Your task to perform on an android device: turn vacation reply on in the gmail app Image 0: 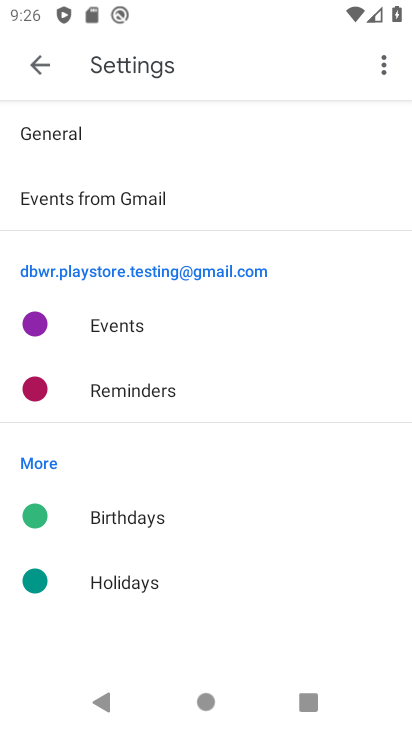
Step 0: drag from (279, 608) to (318, 468)
Your task to perform on an android device: turn vacation reply on in the gmail app Image 1: 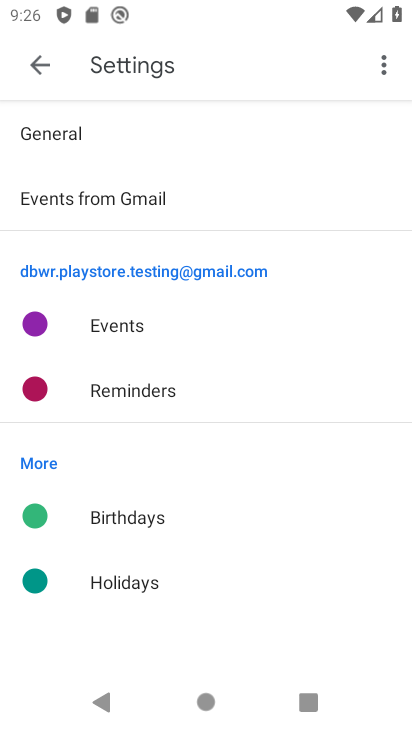
Step 1: press home button
Your task to perform on an android device: turn vacation reply on in the gmail app Image 2: 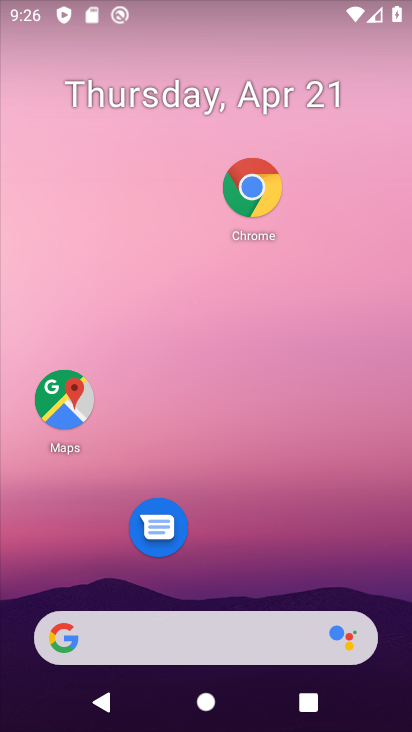
Step 2: drag from (312, 337) to (320, 132)
Your task to perform on an android device: turn vacation reply on in the gmail app Image 3: 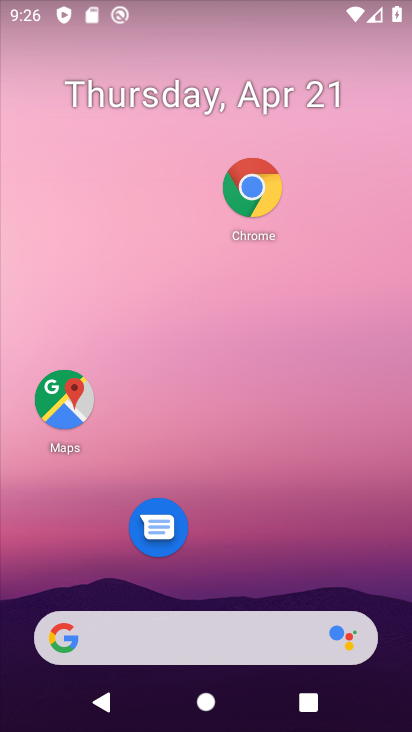
Step 3: drag from (206, 427) to (243, 168)
Your task to perform on an android device: turn vacation reply on in the gmail app Image 4: 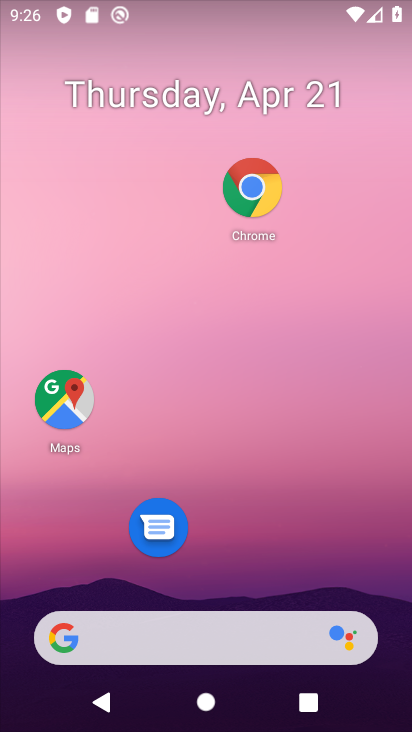
Step 4: drag from (289, 430) to (337, 79)
Your task to perform on an android device: turn vacation reply on in the gmail app Image 5: 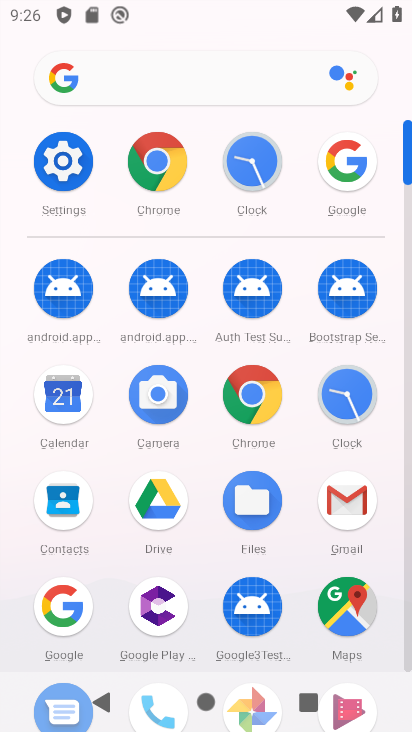
Step 5: click (346, 501)
Your task to perform on an android device: turn vacation reply on in the gmail app Image 6: 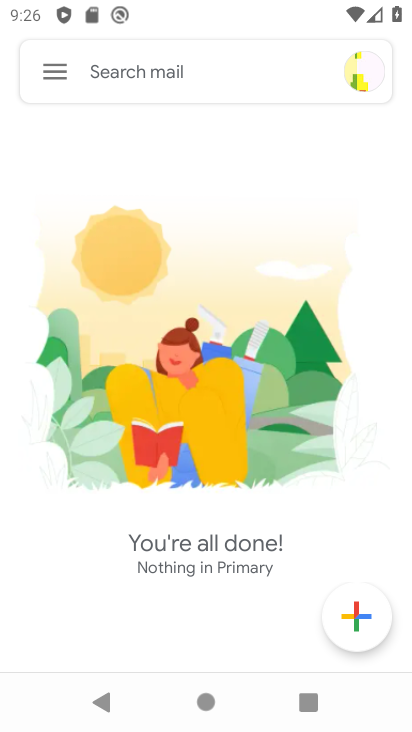
Step 6: click (57, 80)
Your task to perform on an android device: turn vacation reply on in the gmail app Image 7: 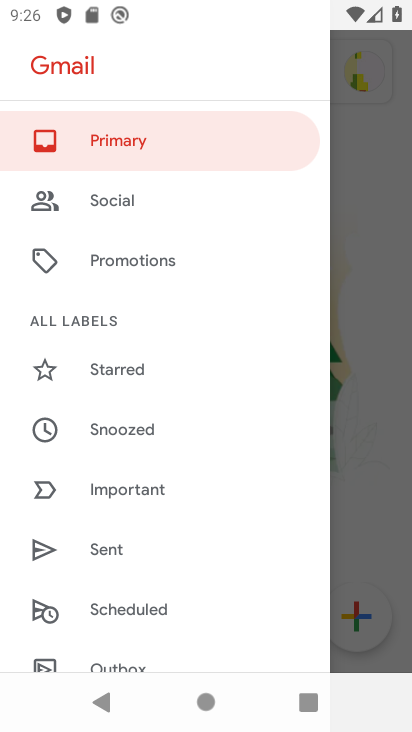
Step 7: drag from (143, 544) to (232, 169)
Your task to perform on an android device: turn vacation reply on in the gmail app Image 8: 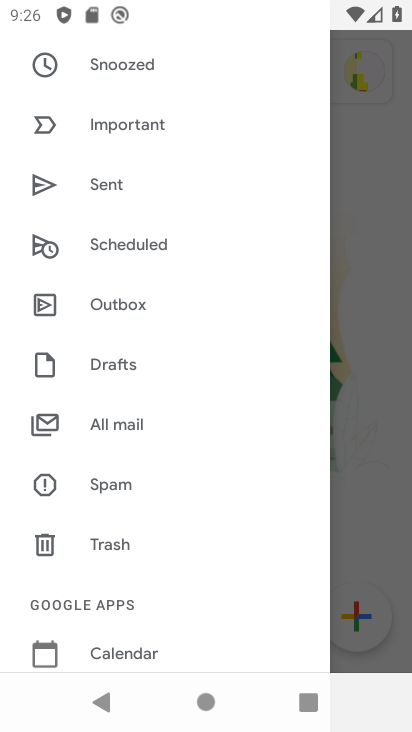
Step 8: drag from (191, 369) to (219, 213)
Your task to perform on an android device: turn vacation reply on in the gmail app Image 9: 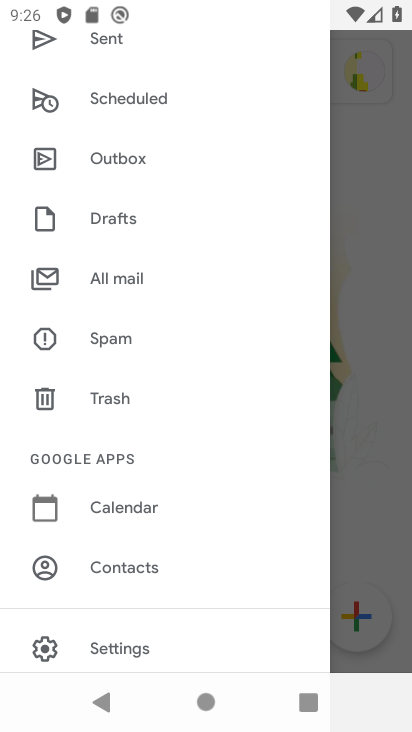
Step 9: drag from (172, 586) to (223, 257)
Your task to perform on an android device: turn vacation reply on in the gmail app Image 10: 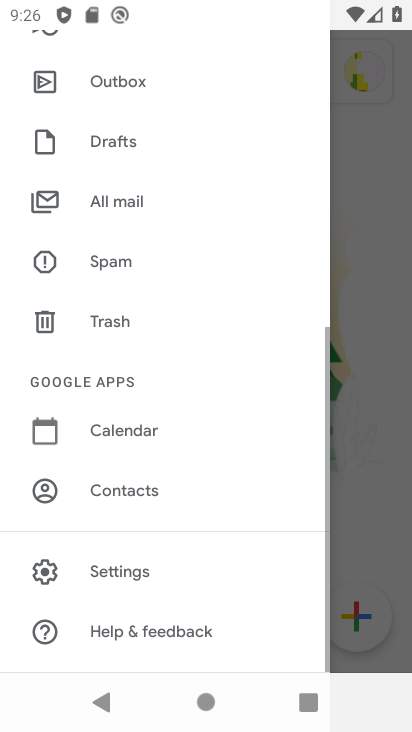
Step 10: click (173, 567)
Your task to perform on an android device: turn vacation reply on in the gmail app Image 11: 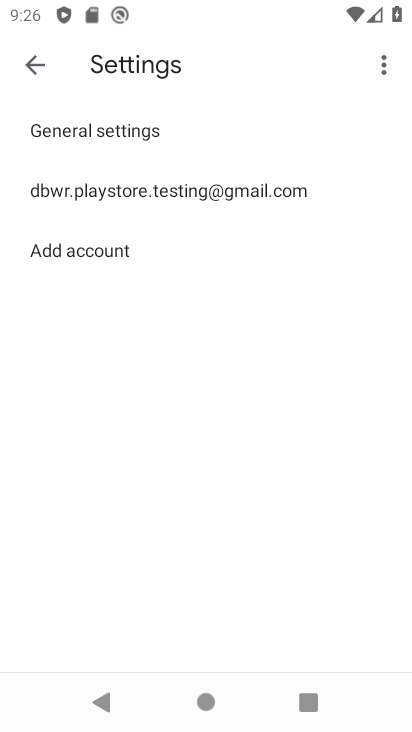
Step 11: click (218, 212)
Your task to perform on an android device: turn vacation reply on in the gmail app Image 12: 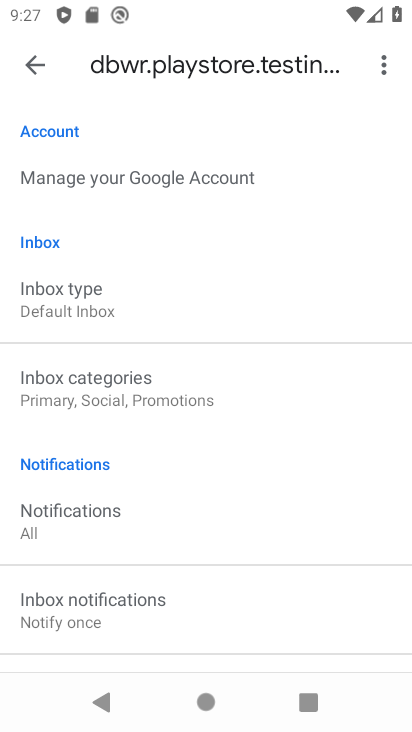
Step 12: drag from (207, 379) to (318, 43)
Your task to perform on an android device: turn vacation reply on in the gmail app Image 13: 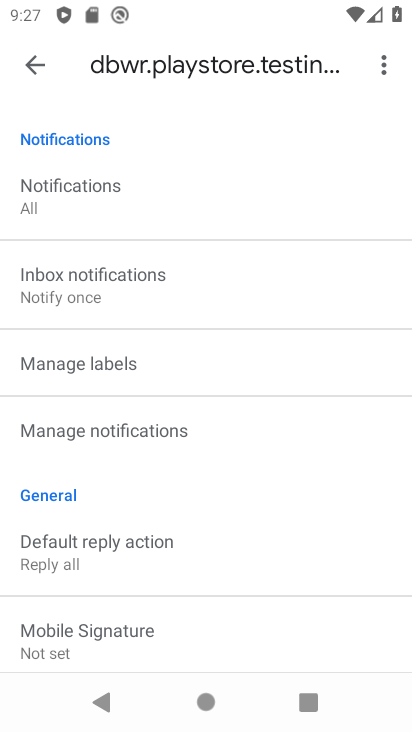
Step 13: drag from (243, 513) to (320, 17)
Your task to perform on an android device: turn vacation reply on in the gmail app Image 14: 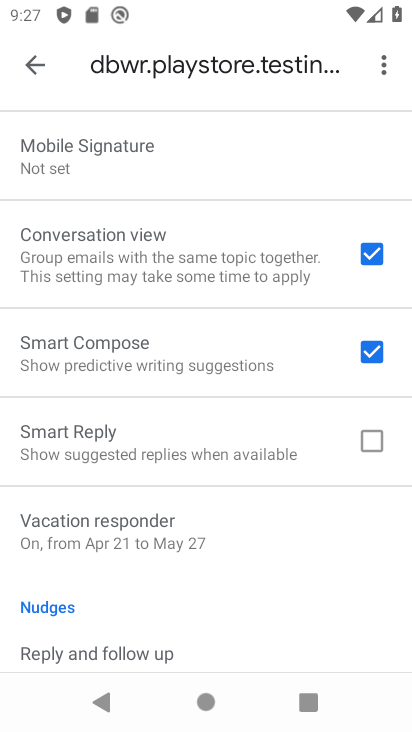
Step 14: click (252, 517)
Your task to perform on an android device: turn vacation reply on in the gmail app Image 15: 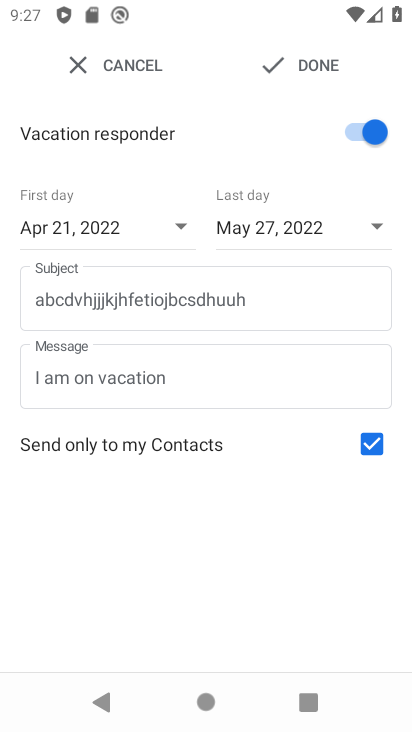
Step 15: task complete